Your task to perform on an android device: open a new tab in the chrome app Image 0: 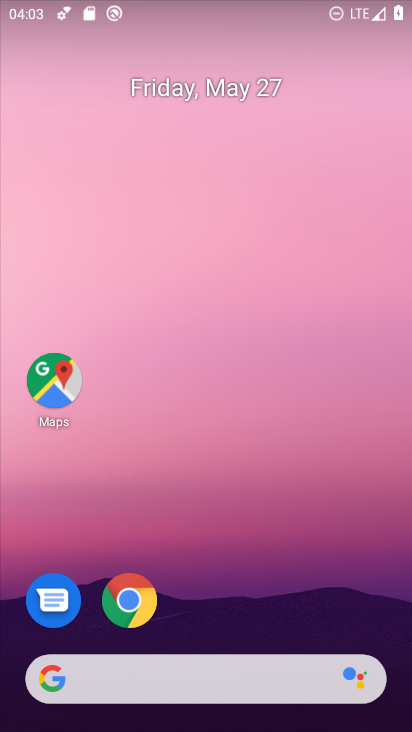
Step 0: click (134, 598)
Your task to perform on an android device: open a new tab in the chrome app Image 1: 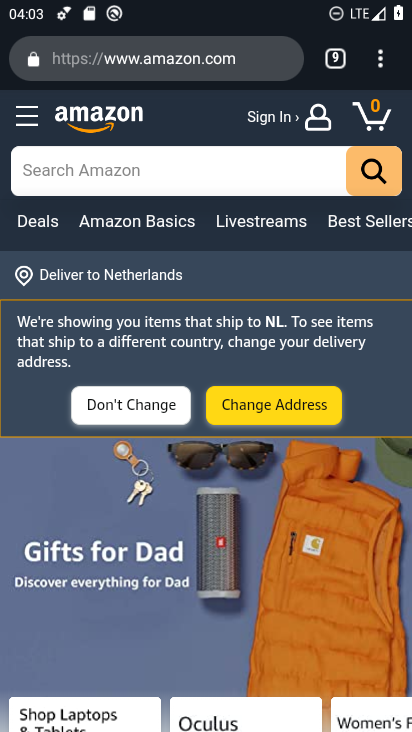
Step 1: click (381, 66)
Your task to perform on an android device: open a new tab in the chrome app Image 2: 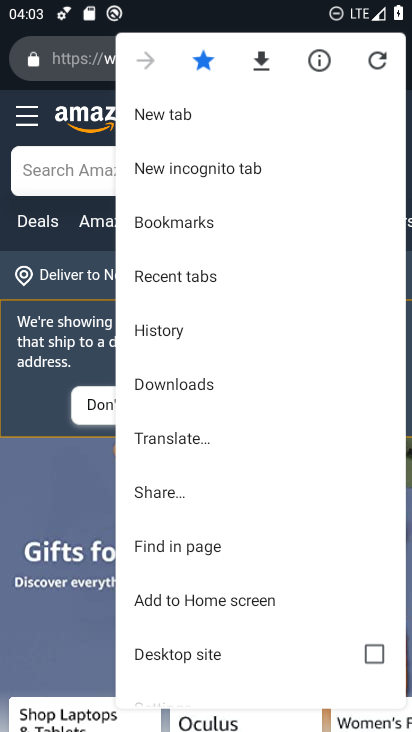
Step 2: click (167, 113)
Your task to perform on an android device: open a new tab in the chrome app Image 3: 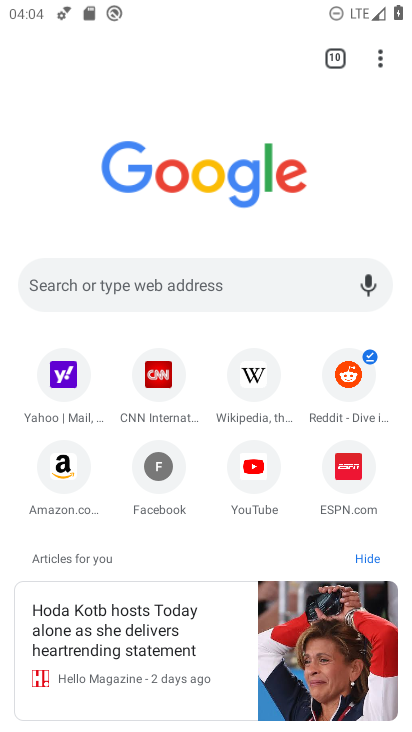
Step 3: task complete